Your task to perform on an android device: check battery use Image 0: 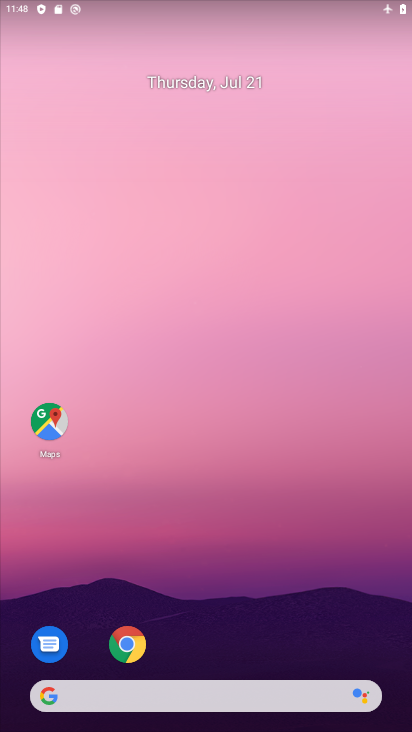
Step 0: drag from (244, 702) to (279, 177)
Your task to perform on an android device: check battery use Image 1: 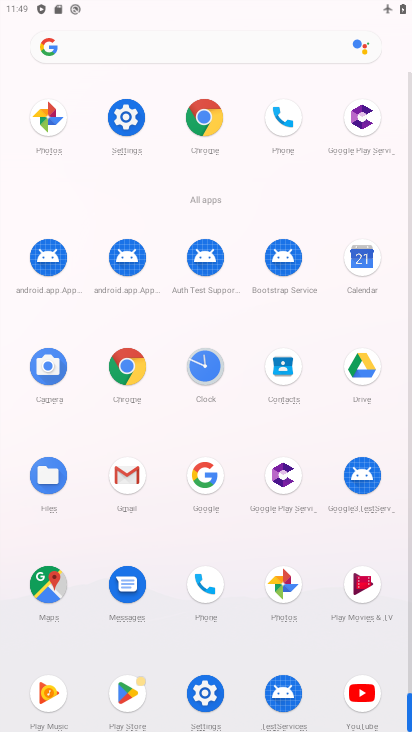
Step 1: click (130, 134)
Your task to perform on an android device: check battery use Image 2: 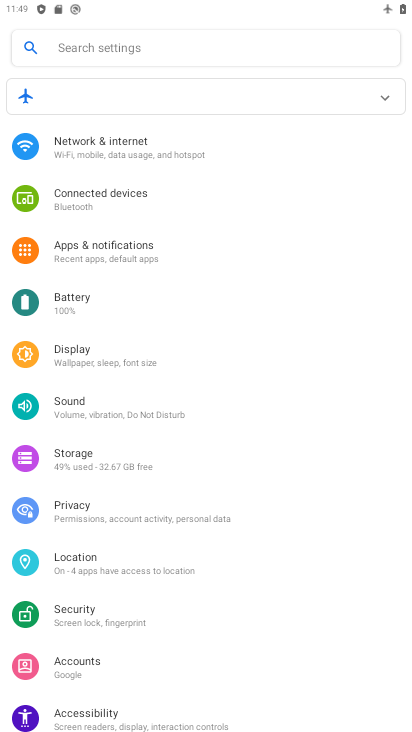
Step 2: click (88, 317)
Your task to perform on an android device: check battery use Image 3: 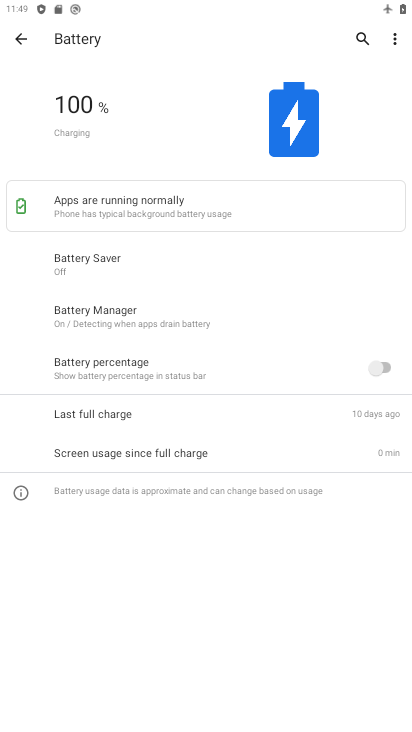
Step 3: task complete